Your task to perform on an android device: move an email to a new category in the gmail app Image 0: 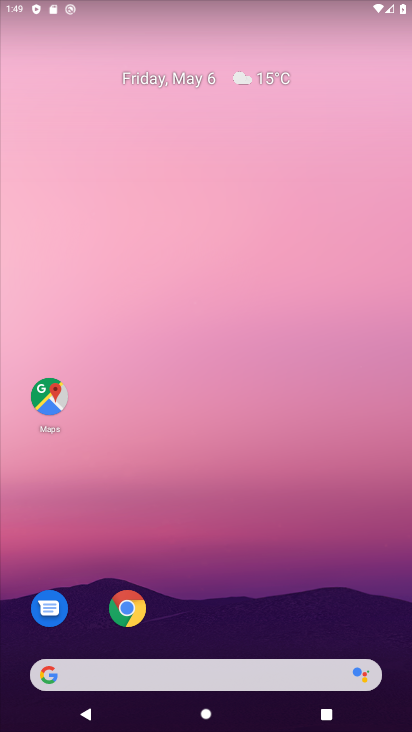
Step 0: drag from (215, 523) to (162, 0)
Your task to perform on an android device: move an email to a new category in the gmail app Image 1: 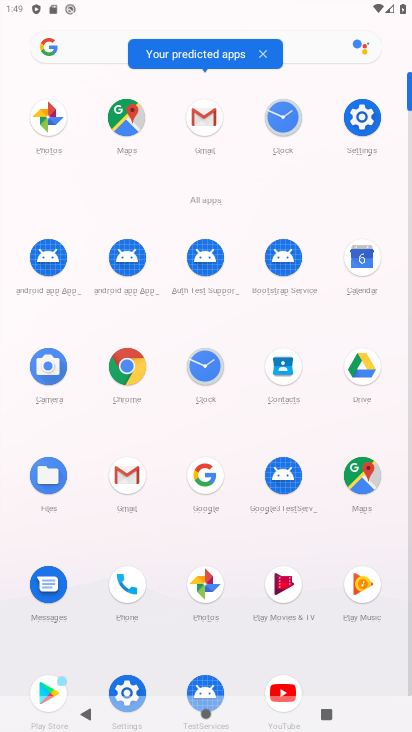
Step 1: click (202, 118)
Your task to perform on an android device: move an email to a new category in the gmail app Image 2: 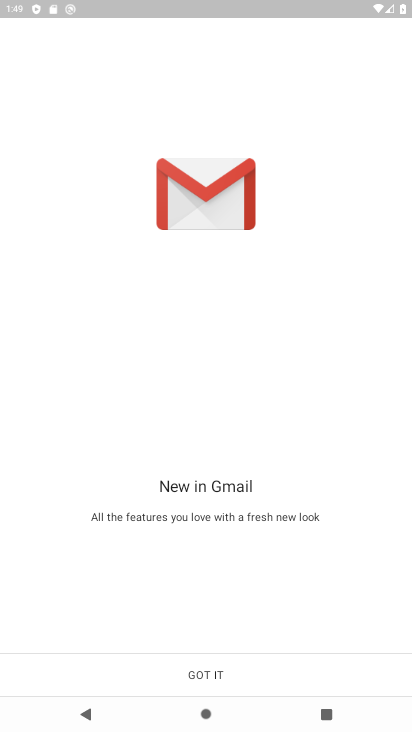
Step 2: click (188, 679)
Your task to perform on an android device: move an email to a new category in the gmail app Image 3: 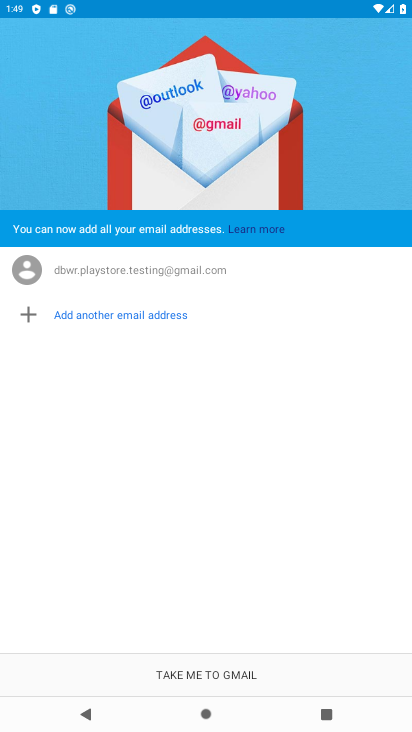
Step 3: click (188, 679)
Your task to perform on an android device: move an email to a new category in the gmail app Image 4: 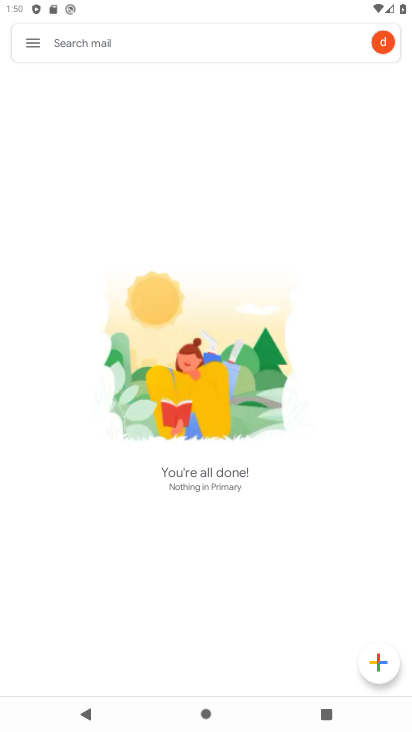
Step 4: click (36, 43)
Your task to perform on an android device: move an email to a new category in the gmail app Image 5: 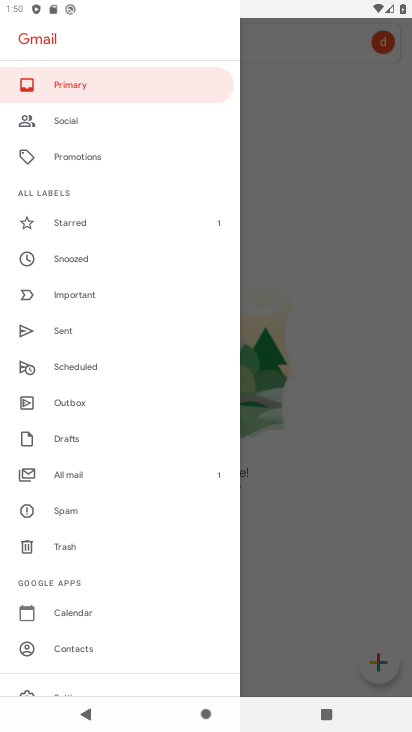
Step 5: click (66, 474)
Your task to perform on an android device: move an email to a new category in the gmail app Image 6: 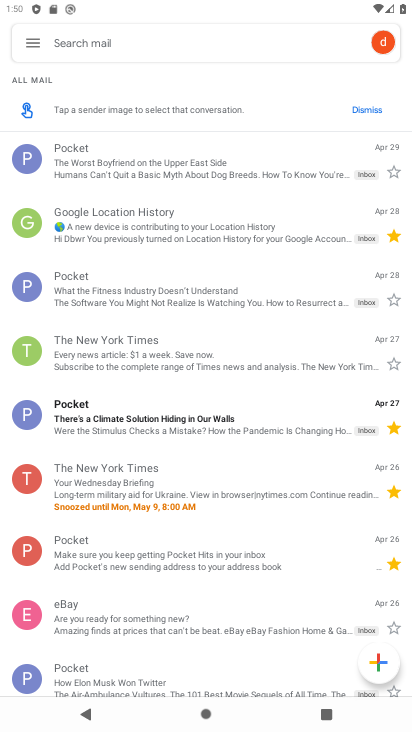
Step 6: click (161, 184)
Your task to perform on an android device: move an email to a new category in the gmail app Image 7: 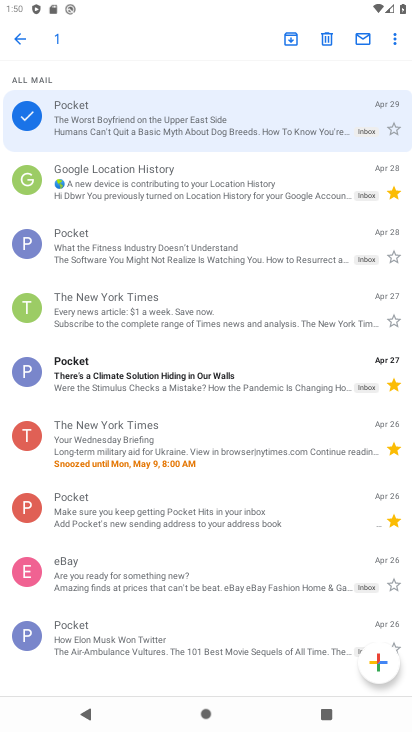
Step 7: click (394, 38)
Your task to perform on an android device: move an email to a new category in the gmail app Image 8: 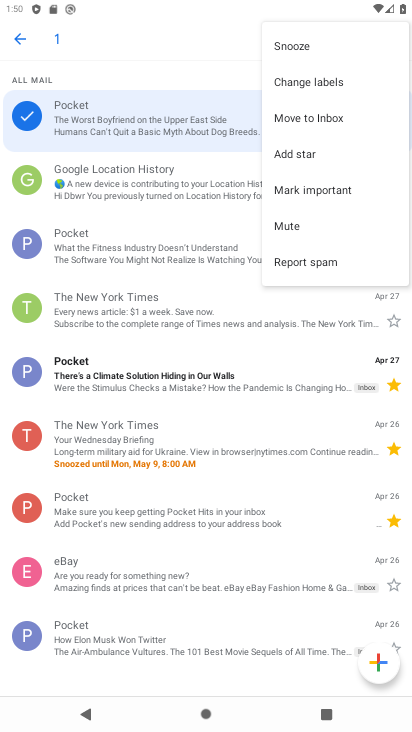
Step 8: click (340, 116)
Your task to perform on an android device: move an email to a new category in the gmail app Image 9: 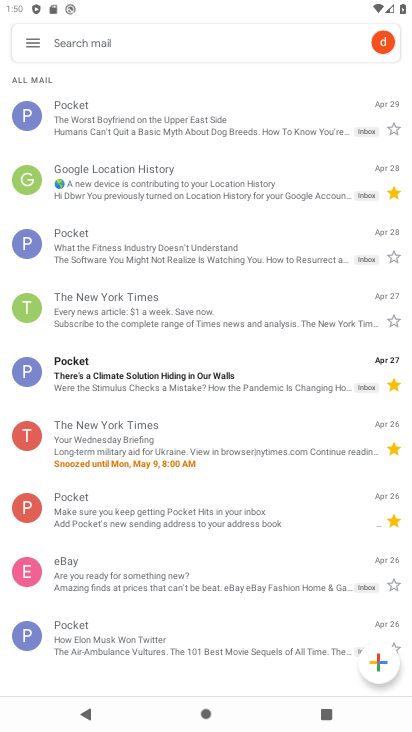
Step 9: task complete